Your task to perform on an android device: turn off smart reply in the gmail app Image 0: 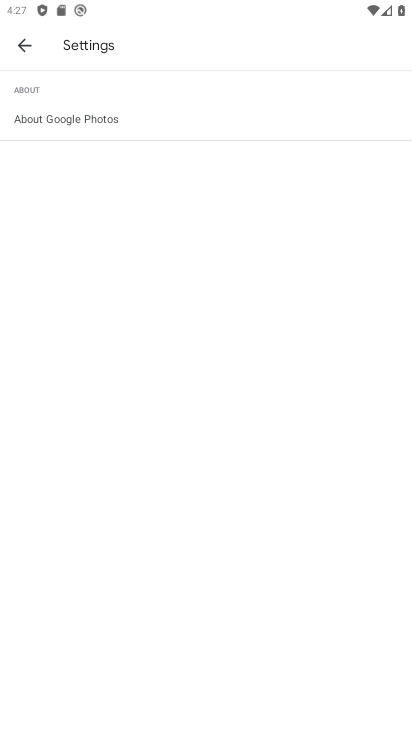
Step 0: press back button
Your task to perform on an android device: turn off smart reply in the gmail app Image 1: 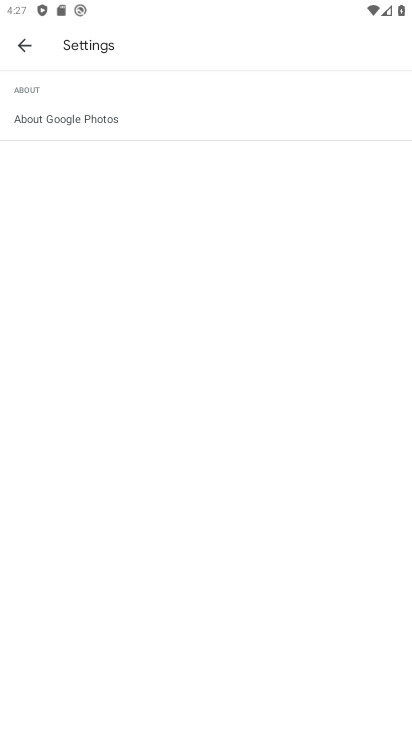
Step 1: press home button
Your task to perform on an android device: turn off smart reply in the gmail app Image 2: 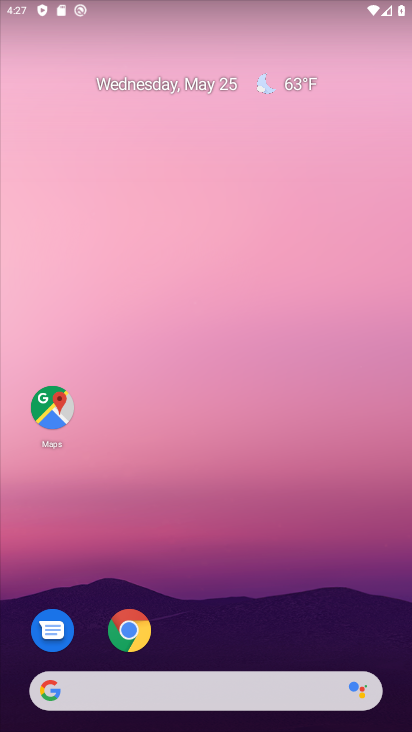
Step 2: drag from (197, 524) to (274, 75)
Your task to perform on an android device: turn off smart reply in the gmail app Image 3: 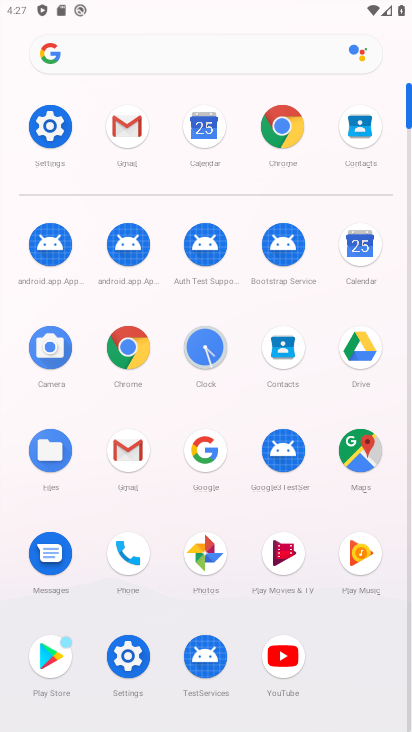
Step 3: click (123, 448)
Your task to perform on an android device: turn off smart reply in the gmail app Image 4: 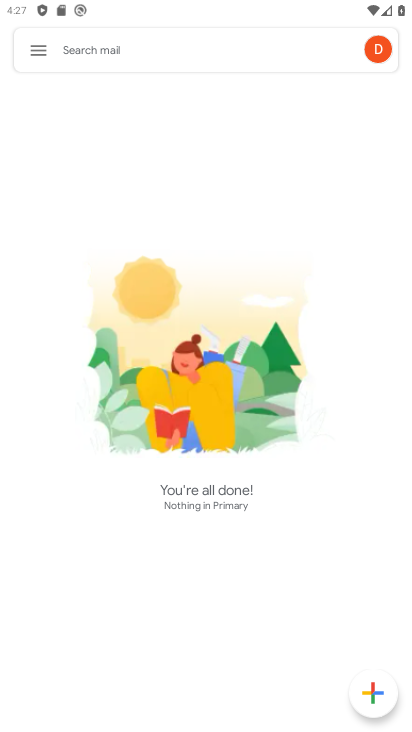
Step 4: click (34, 51)
Your task to perform on an android device: turn off smart reply in the gmail app Image 5: 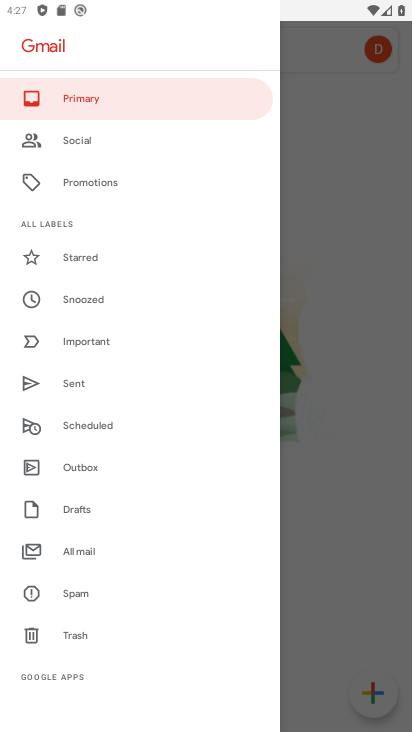
Step 5: drag from (142, 611) to (212, 69)
Your task to perform on an android device: turn off smart reply in the gmail app Image 6: 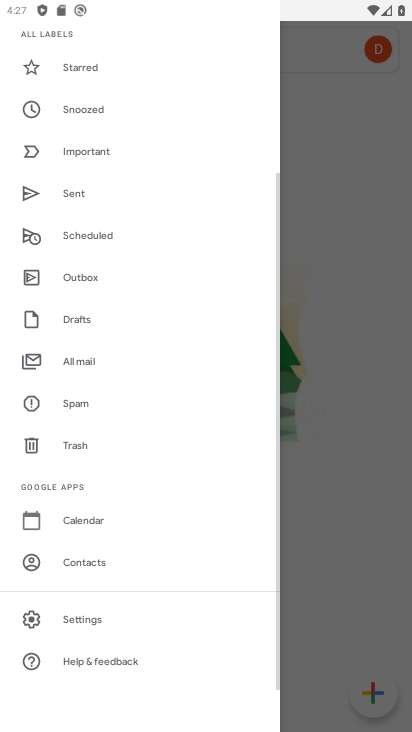
Step 6: click (81, 620)
Your task to perform on an android device: turn off smart reply in the gmail app Image 7: 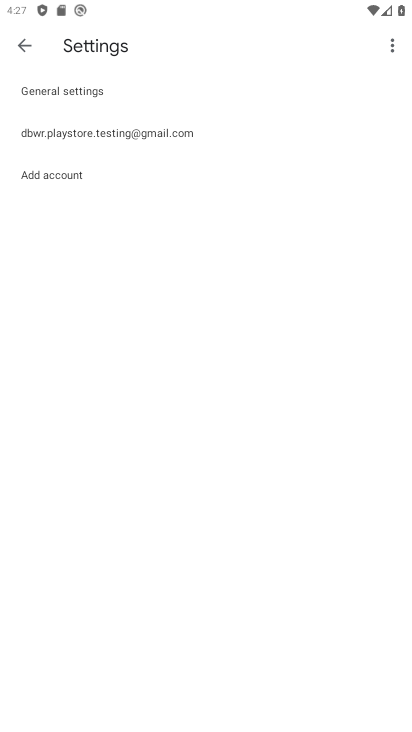
Step 7: click (139, 137)
Your task to perform on an android device: turn off smart reply in the gmail app Image 8: 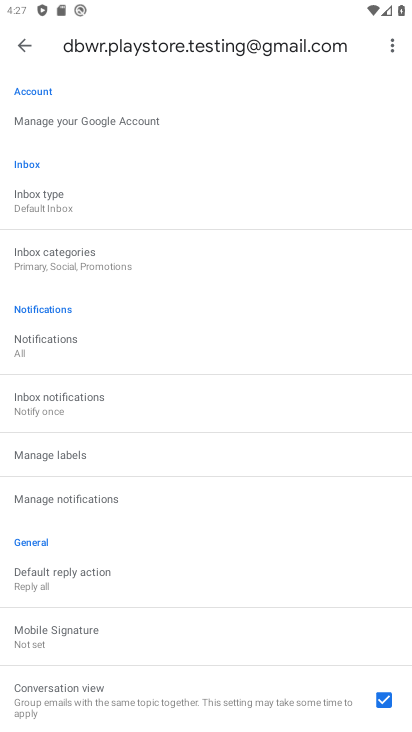
Step 8: drag from (101, 649) to (209, 206)
Your task to perform on an android device: turn off smart reply in the gmail app Image 9: 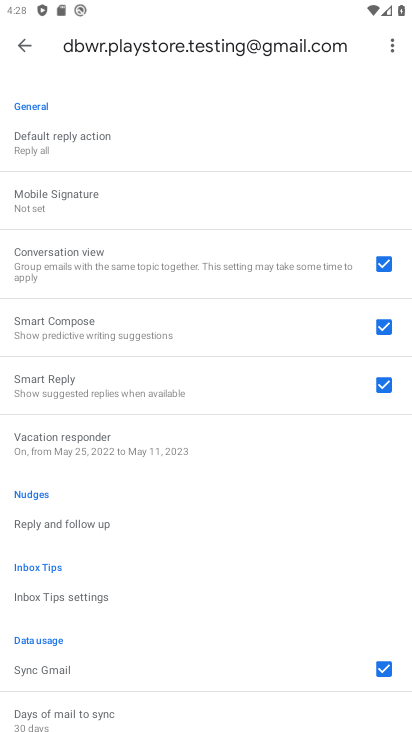
Step 9: click (386, 387)
Your task to perform on an android device: turn off smart reply in the gmail app Image 10: 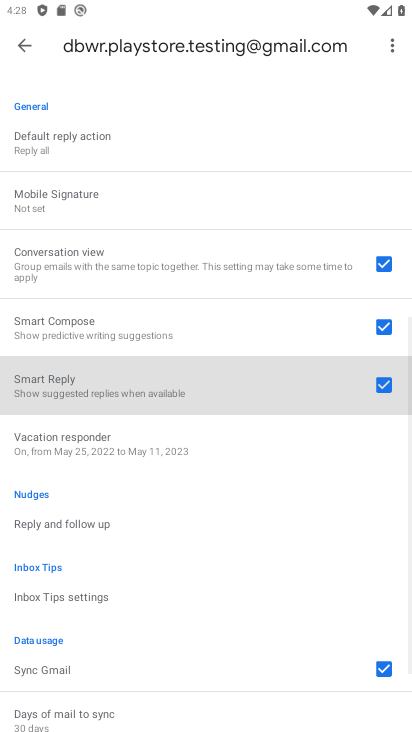
Step 10: task complete